Your task to perform on an android device: choose inbox layout in the gmail app Image 0: 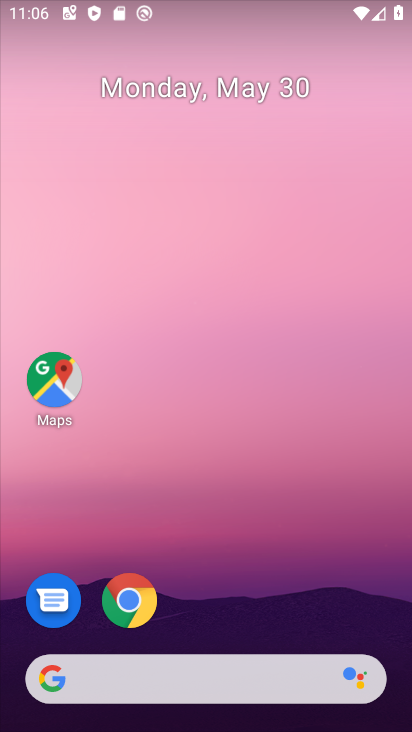
Step 0: drag from (230, 724) to (211, 80)
Your task to perform on an android device: choose inbox layout in the gmail app Image 1: 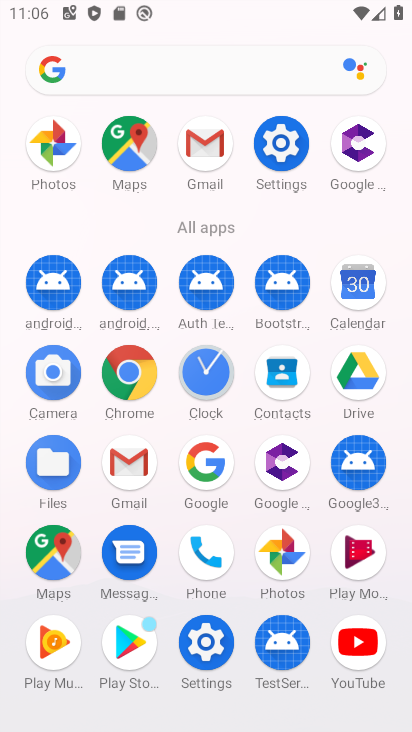
Step 1: click (139, 462)
Your task to perform on an android device: choose inbox layout in the gmail app Image 2: 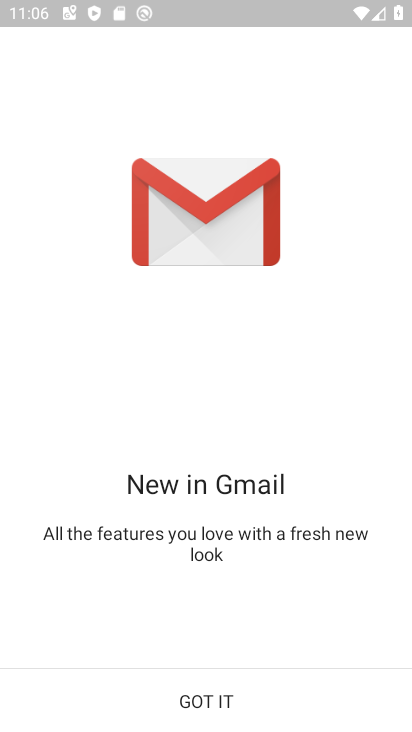
Step 2: click (199, 695)
Your task to perform on an android device: choose inbox layout in the gmail app Image 3: 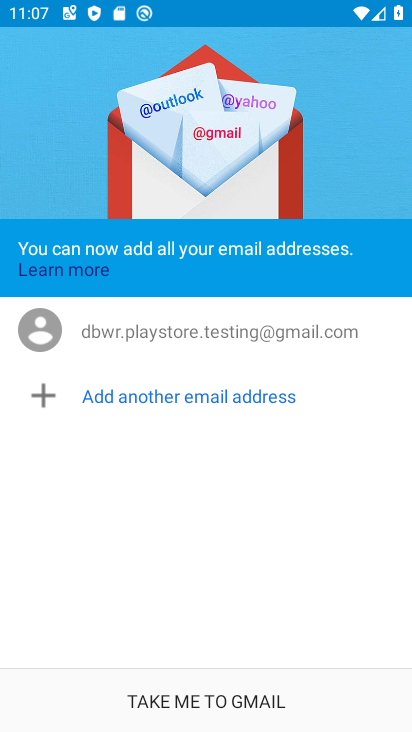
Step 3: click (216, 694)
Your task to perform on an android device: choose inbox layout in the gmail app Image 4: 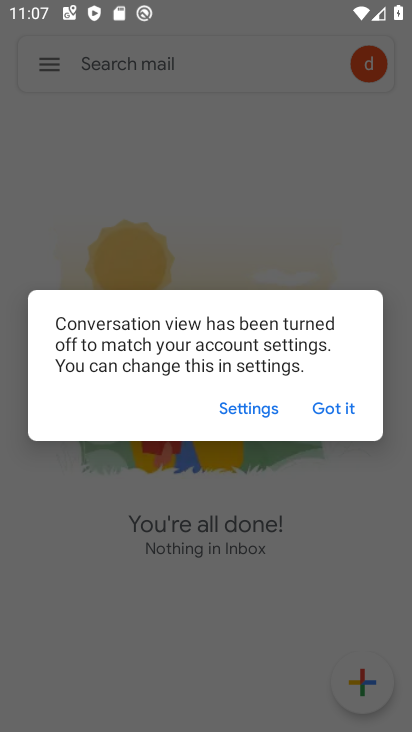
Step 4: click (329, 404)
Your task to perform on an android device: choose inbox layout in the gmail app Image 5: 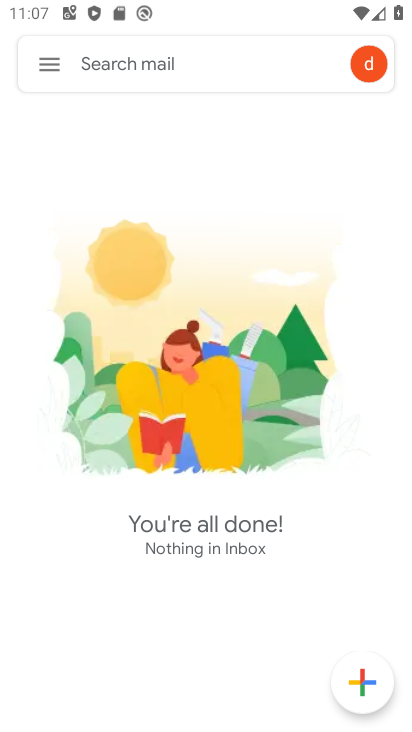
Step 5: click (50, 68)
Your task to perform on an android device: choose inbox layout in the gmail app Image 6: 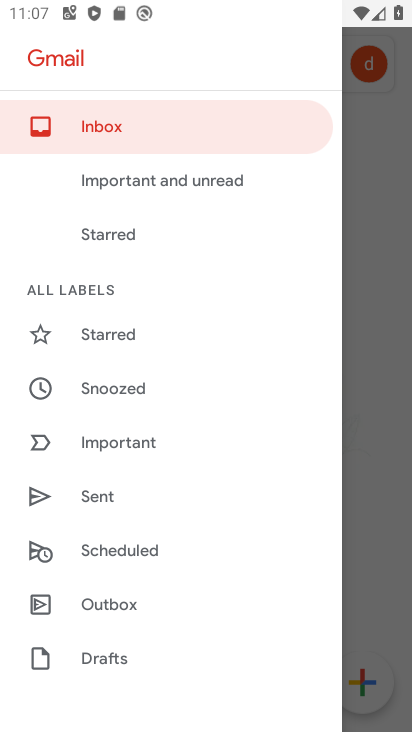
Step 6: drag from (232, 497) to (232, 132)
Your task to perform on an android device: choose inbox layout in the gmail app Image 7: 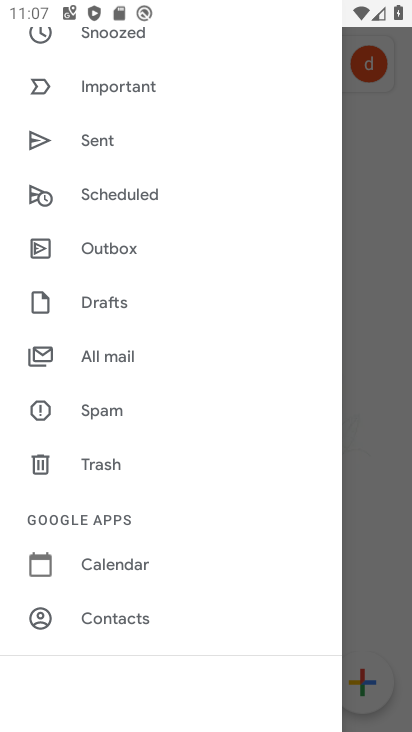
Step 7: drag from (183, 643) to (191, 157)
Your task to perform on an android device: choose inbox layout in the gmail app Image 8: 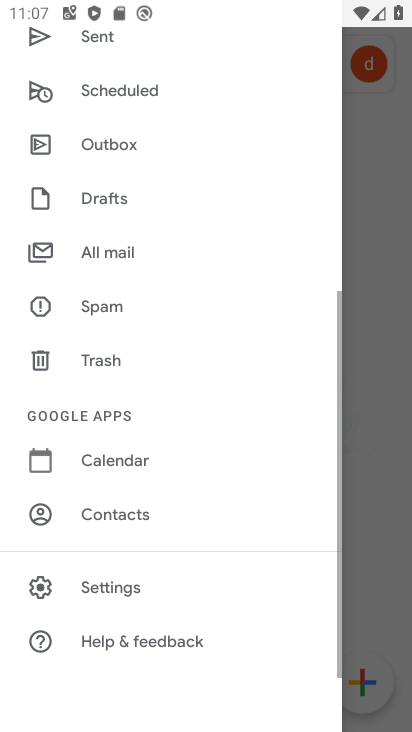
Step 8: click (103, 587)
Your task to perform on an android device: choose inbox layout in the gmail app Image 9: 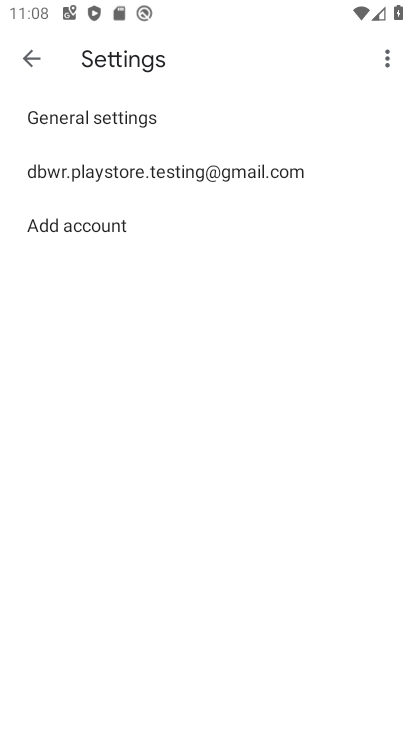
Step 9: click (157, 169)
Your task to perform on an android device: choose inbox layout in the gmail app Image 10: 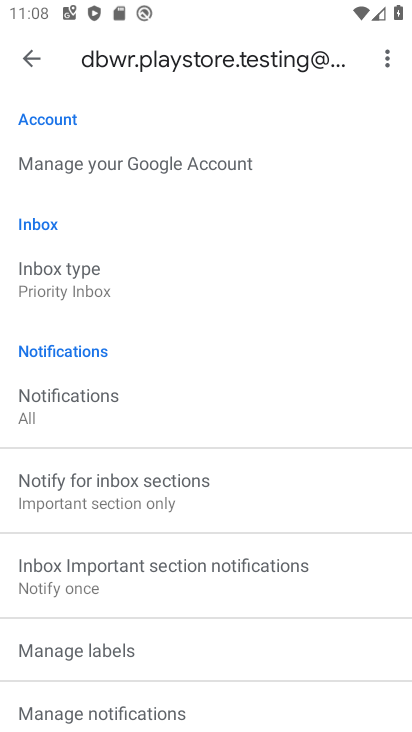
Step 10: click (64, 291)
Your task to perform on an android device: choose inbox layout in the gmail app Image 11: 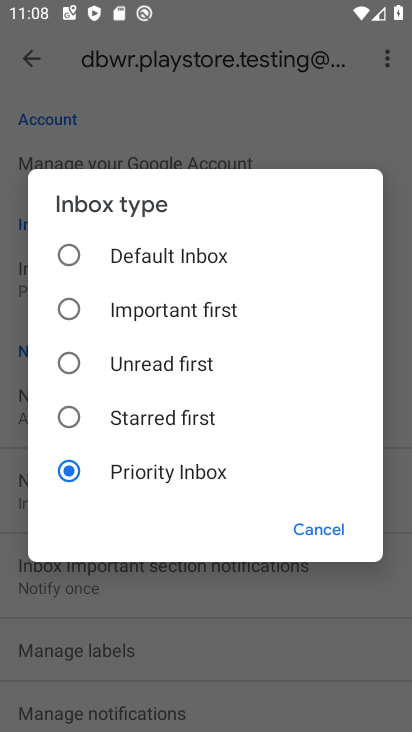
Step 11: click (69, 252)
Your task to perform on an android device: choose inbox layout in the gmail app Image 12: 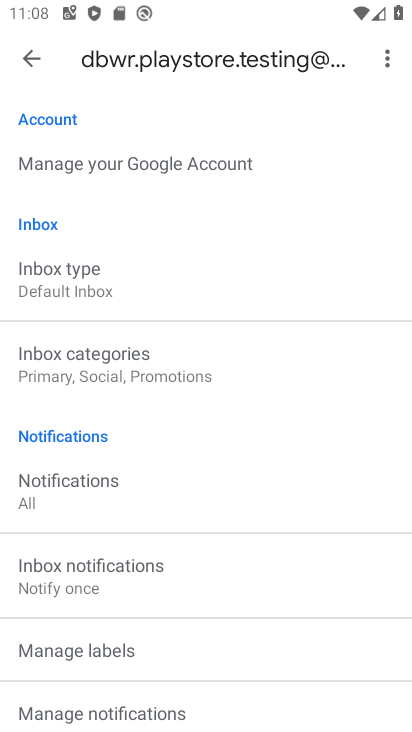
Step 12: task complete